Your task to perform on an android device: Search for Italian restaurants on Maps Image 0: 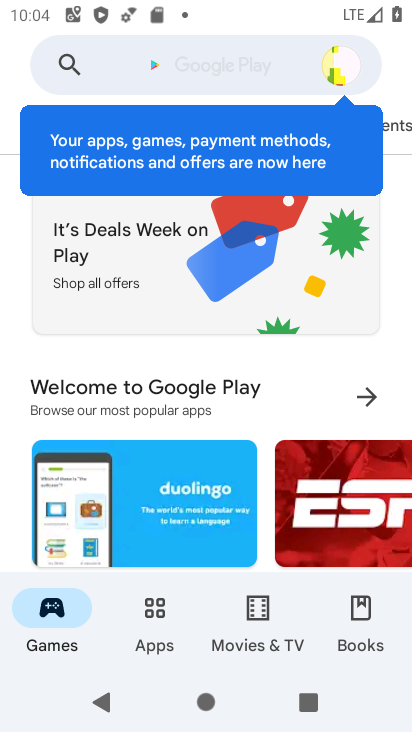
Step 0: press back button
Your task to perform on an android device: Search for Italian restaurants on Maps Image 1: 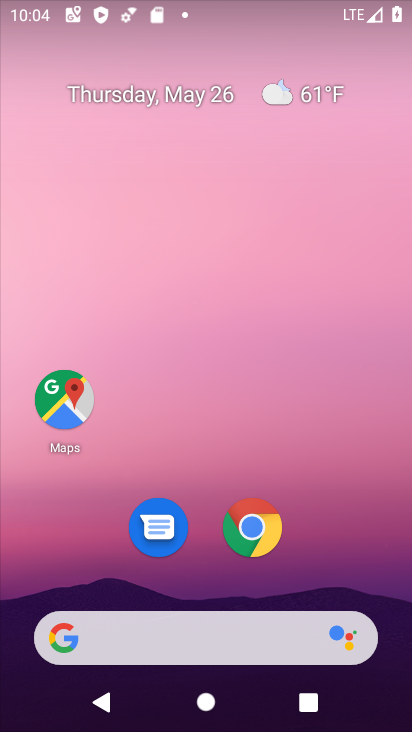
Step 1: click (62, 403)
Your task to perform on an android device: Search for Italian restaurants on Maps Image 2: 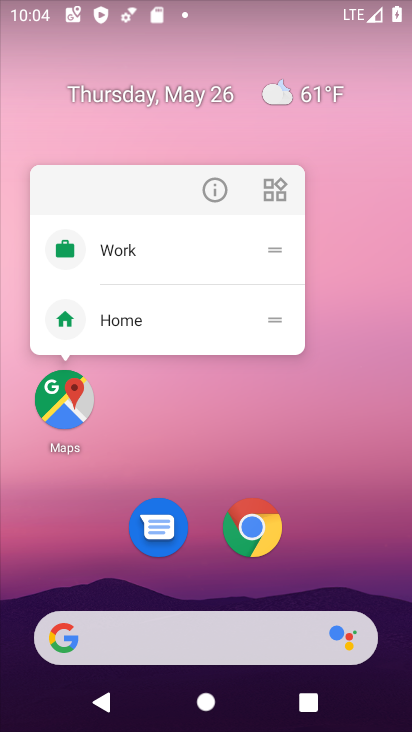
Step 2: click (39, 394)
Your task to perform on an android device: Search for Italian restaurants on Maps Image 3: 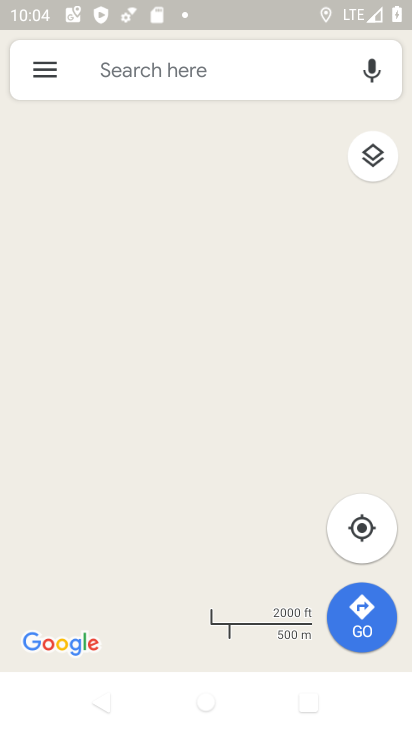
Step 3: click (140, 66)
Your task to perform on an android device: Search for Italian restaurants on Maps Image 4: 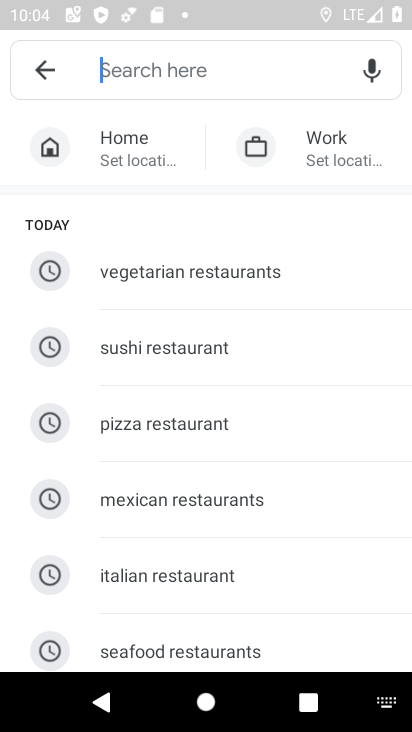
Step 4: click (164, 574)
Your task to perform on an android device: Search for Italian restaurants on Maps Image 5: 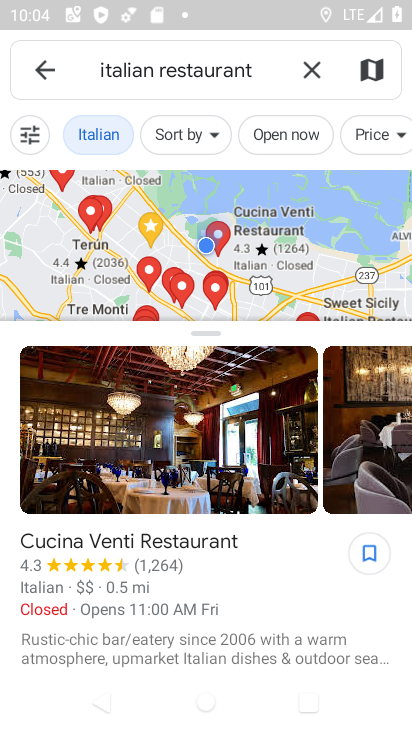
Step 5: task complete